Your task to perform on an android device: open app "Skype" (install if not already installed) Image 0: 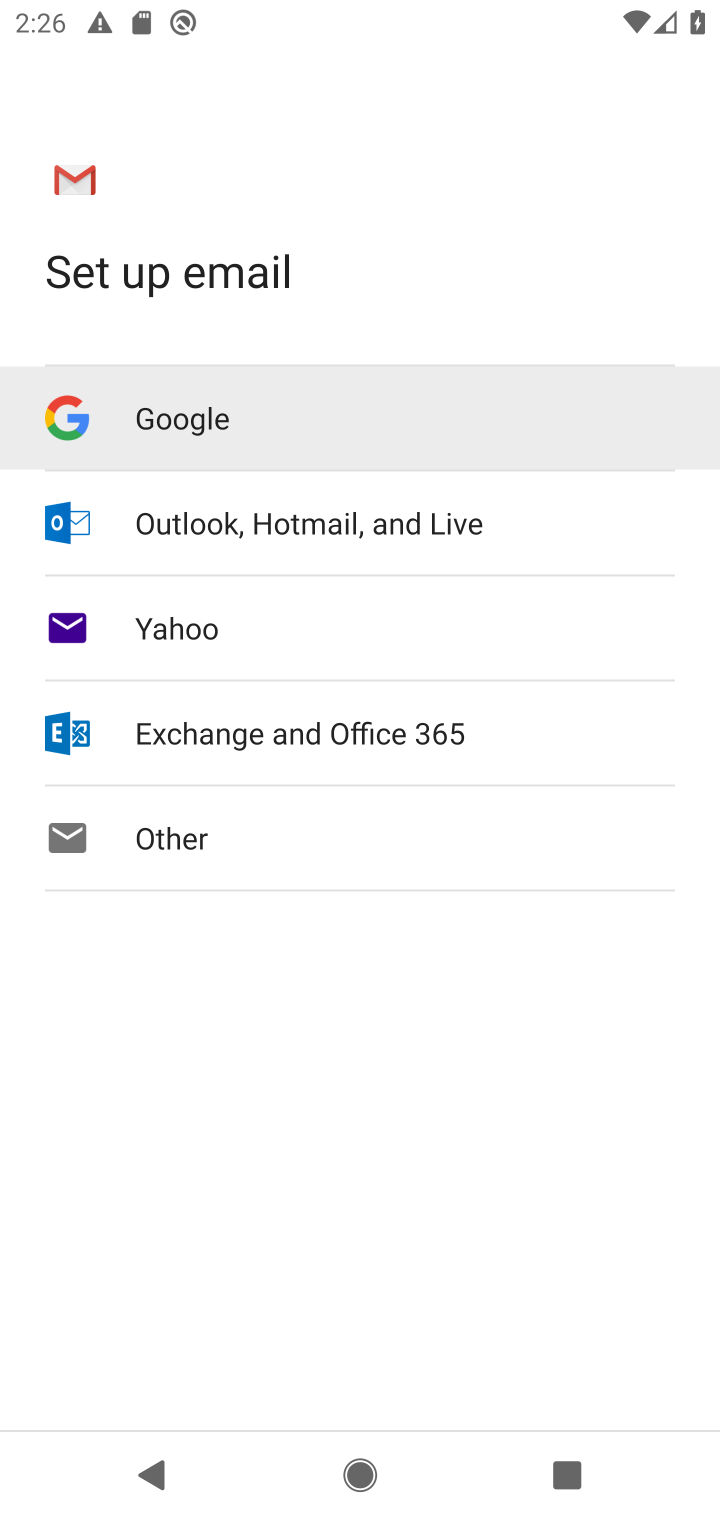
Step 0: press home button
Your task to perform on an android device: open app "Skype" (install if not already installed) Image 1: 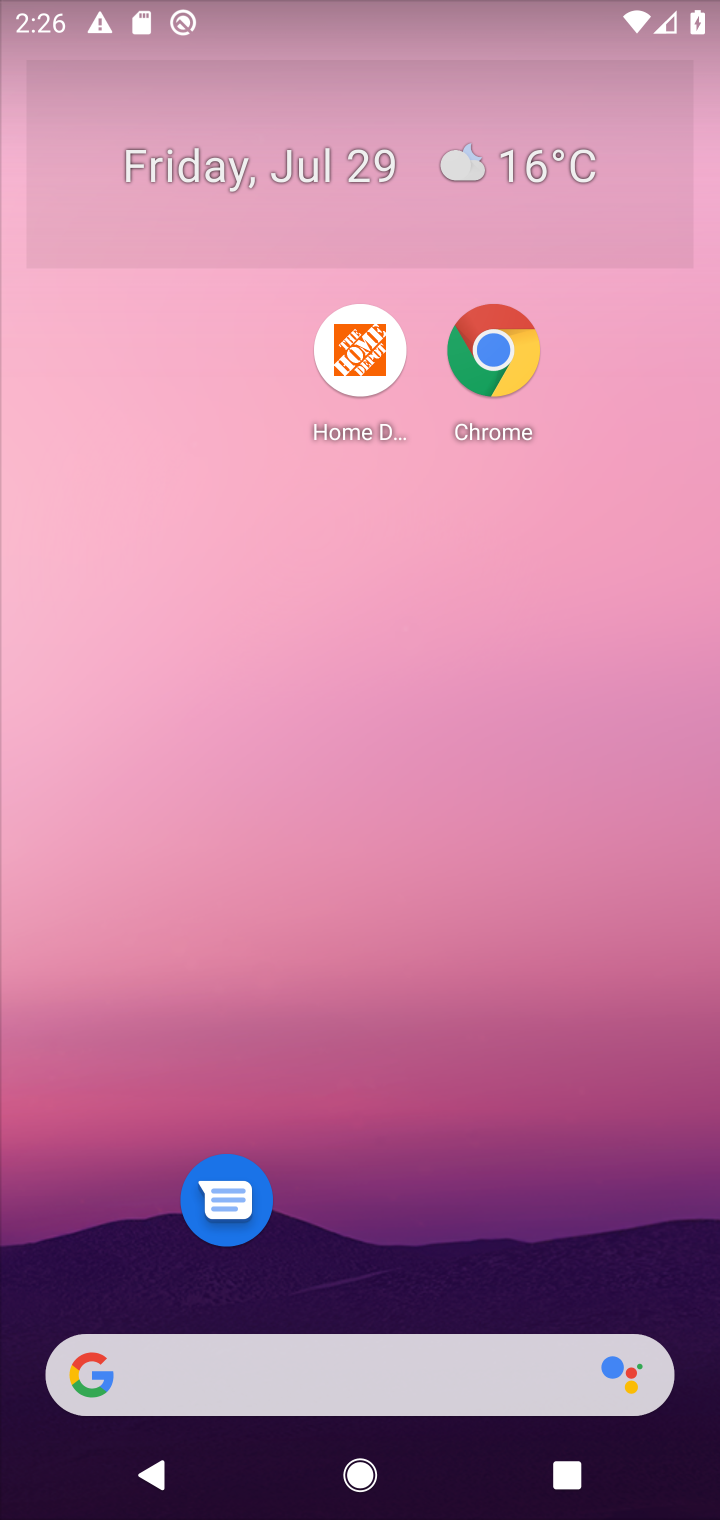
Step 1: drag from (579, 1178) to (606, 170)
Your task to perform on an android device: open app "Skype" (install if not already installed) Image 2: 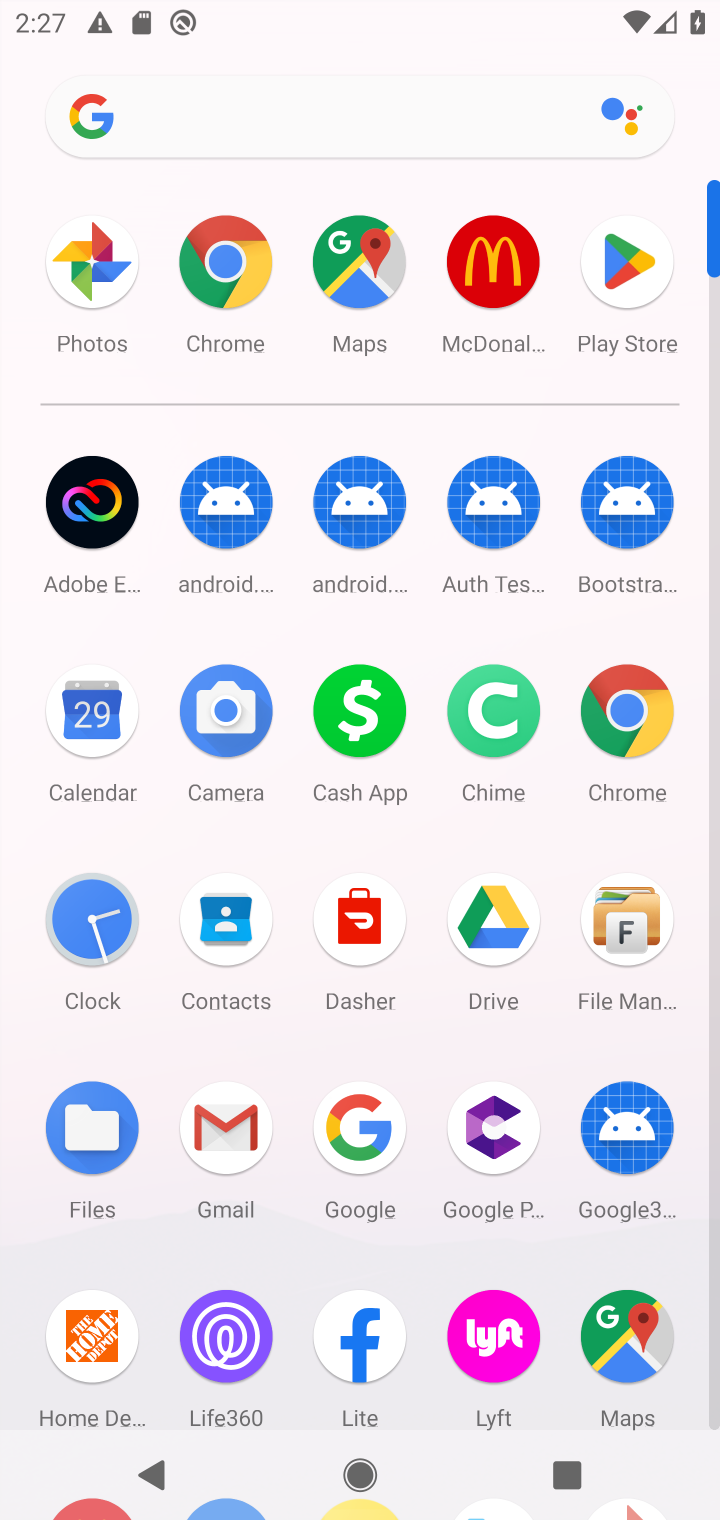
Step 2: click (638, 277)
Your task to perform on an android device: open app "Skype" (install if not already installed) Image 3: 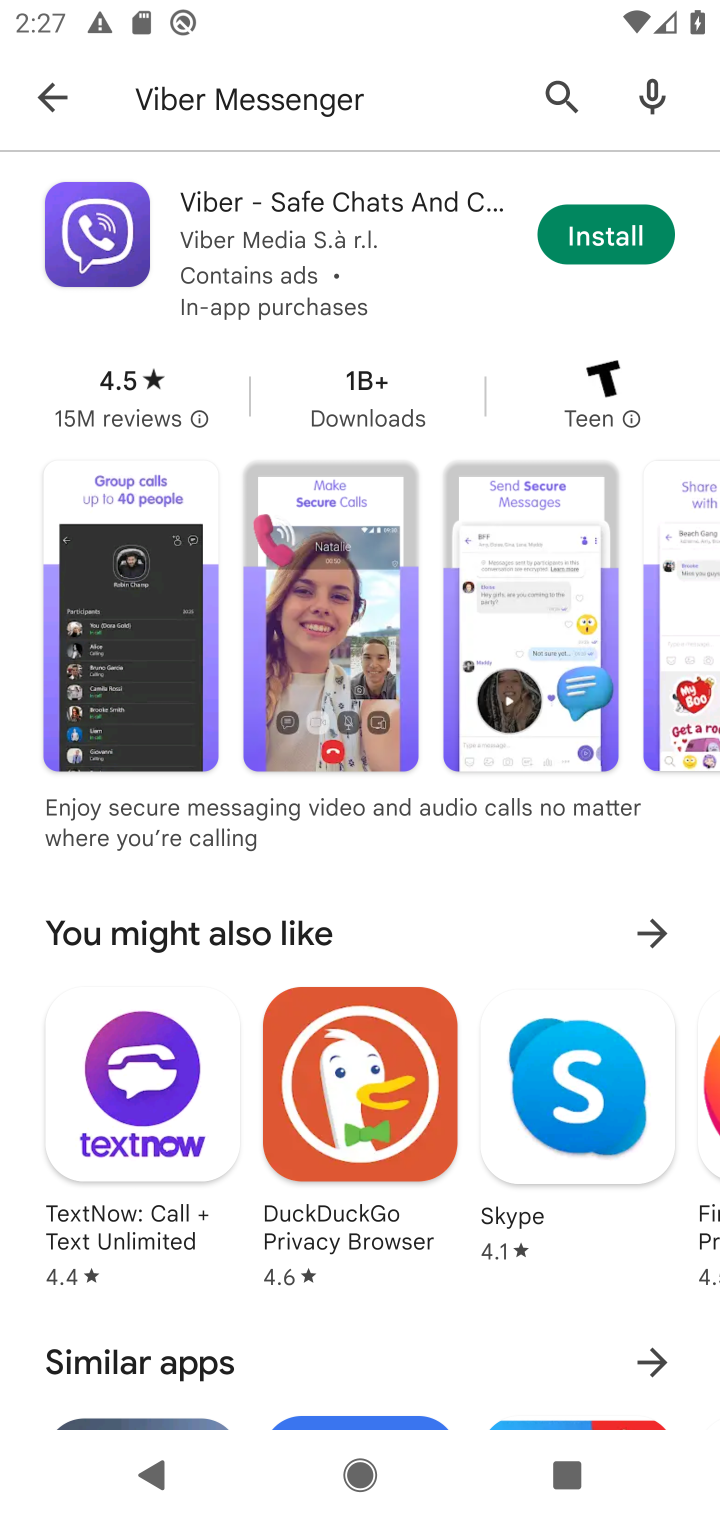
Step 3: click (377, 99)
Your task to perform on an android device: open app "Skype" (install if not already installed) Image 4: 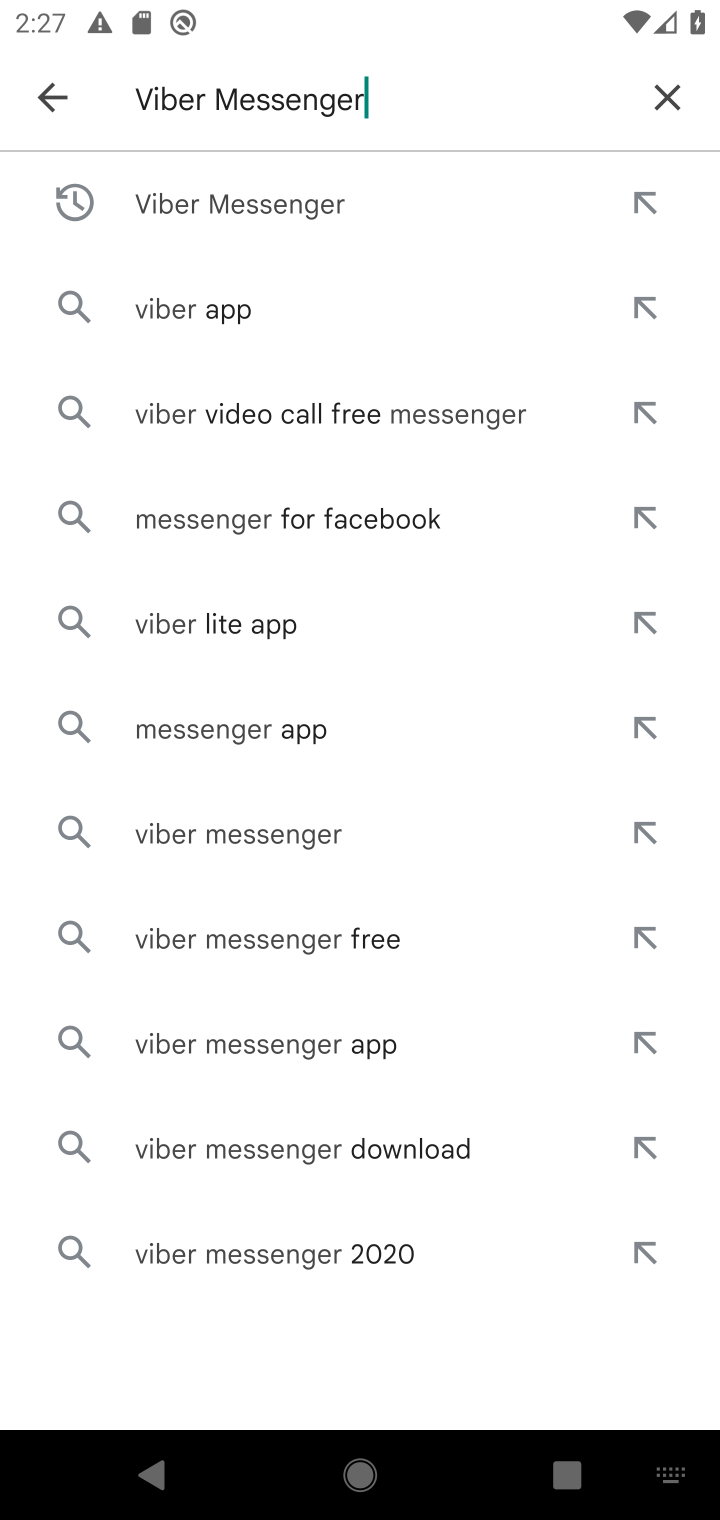
Step 4: click (650, 97)
Your task to perform on an android device: open app "Skype" (install if not already installed) Image 5: 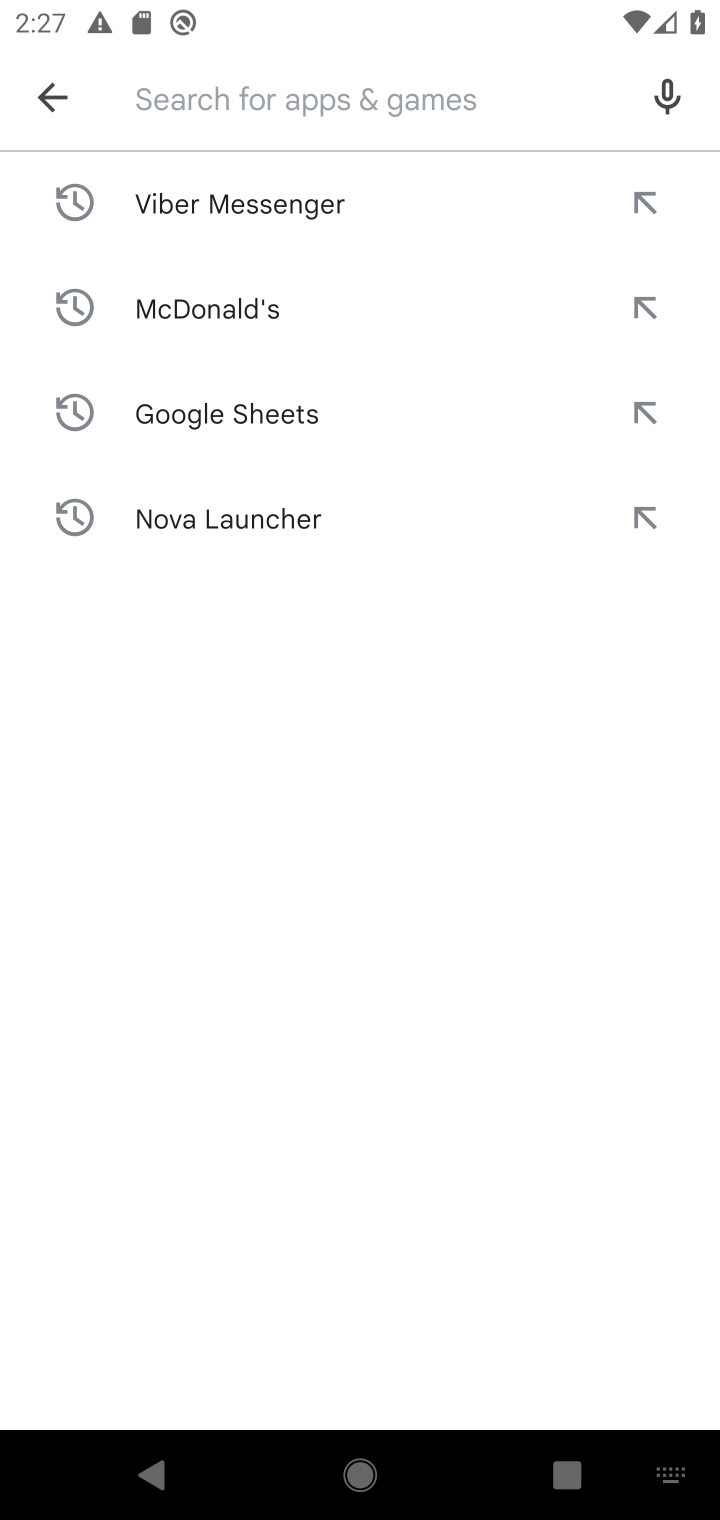
Step 5: type "Skype"
Your task to perform on an android device: open app "Skype" (install if not already installed) Image 6: 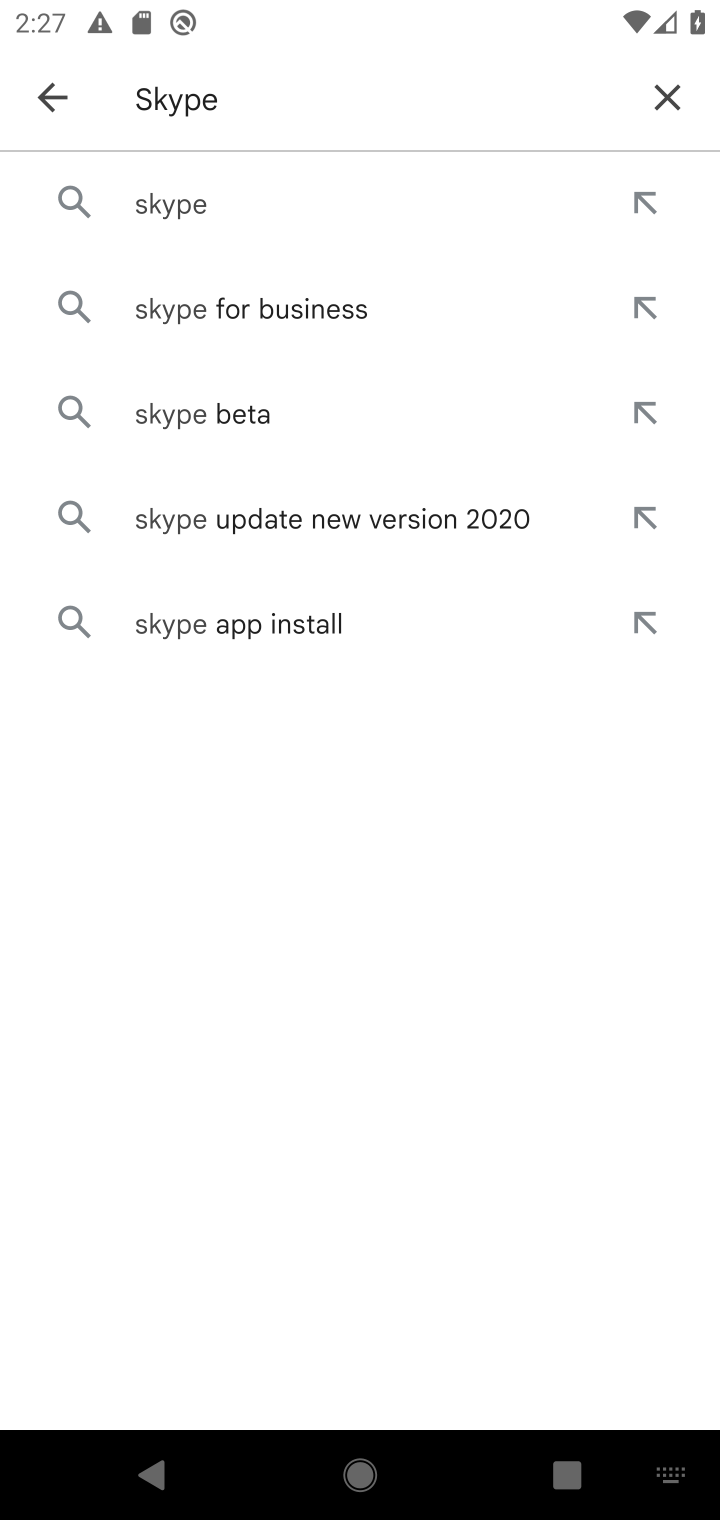
Step 6: press enter
Your task to perform on an android device: open app "Skype" (install if not already installed) Image 7: 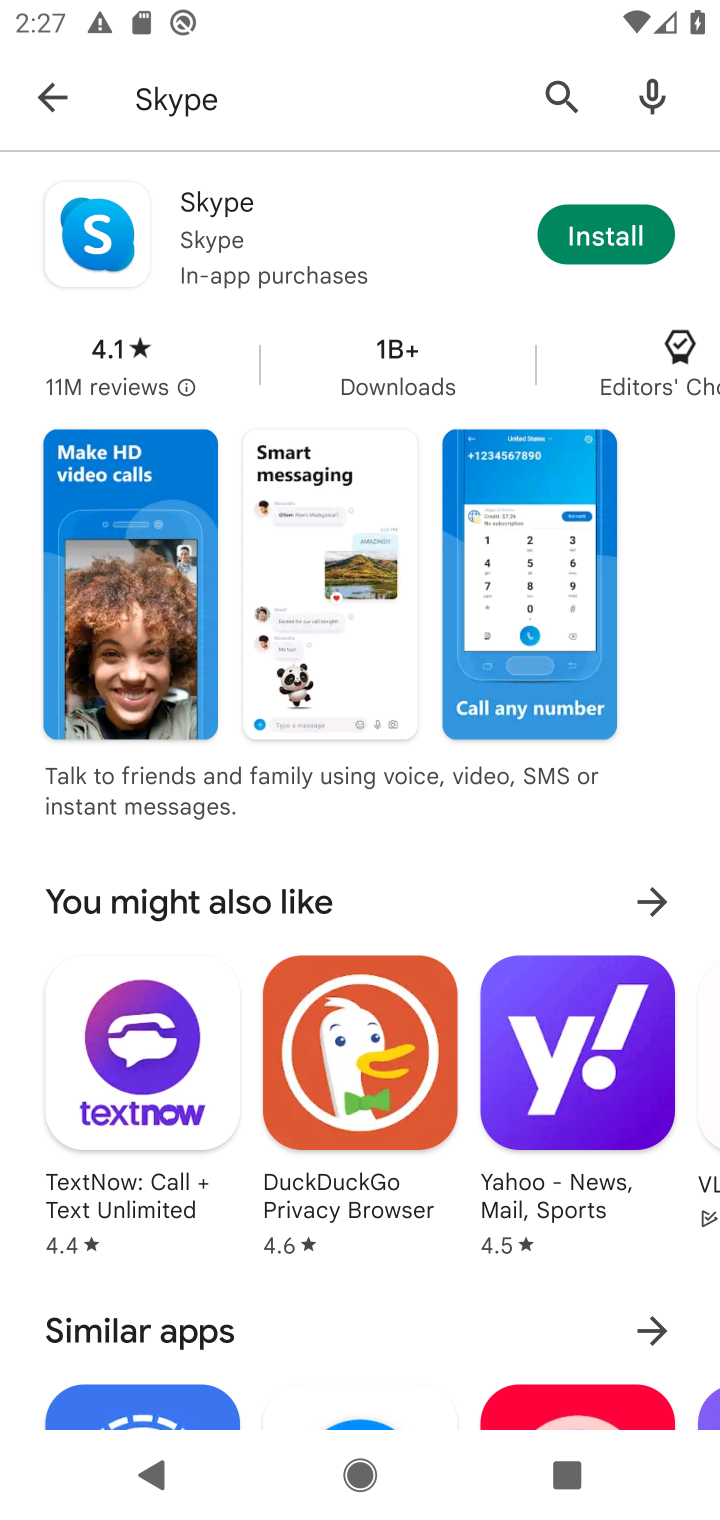
Step 7: click (633, 225)
Your task to perform on an android device: open app "Skype" (install if not already installed) Image 8: 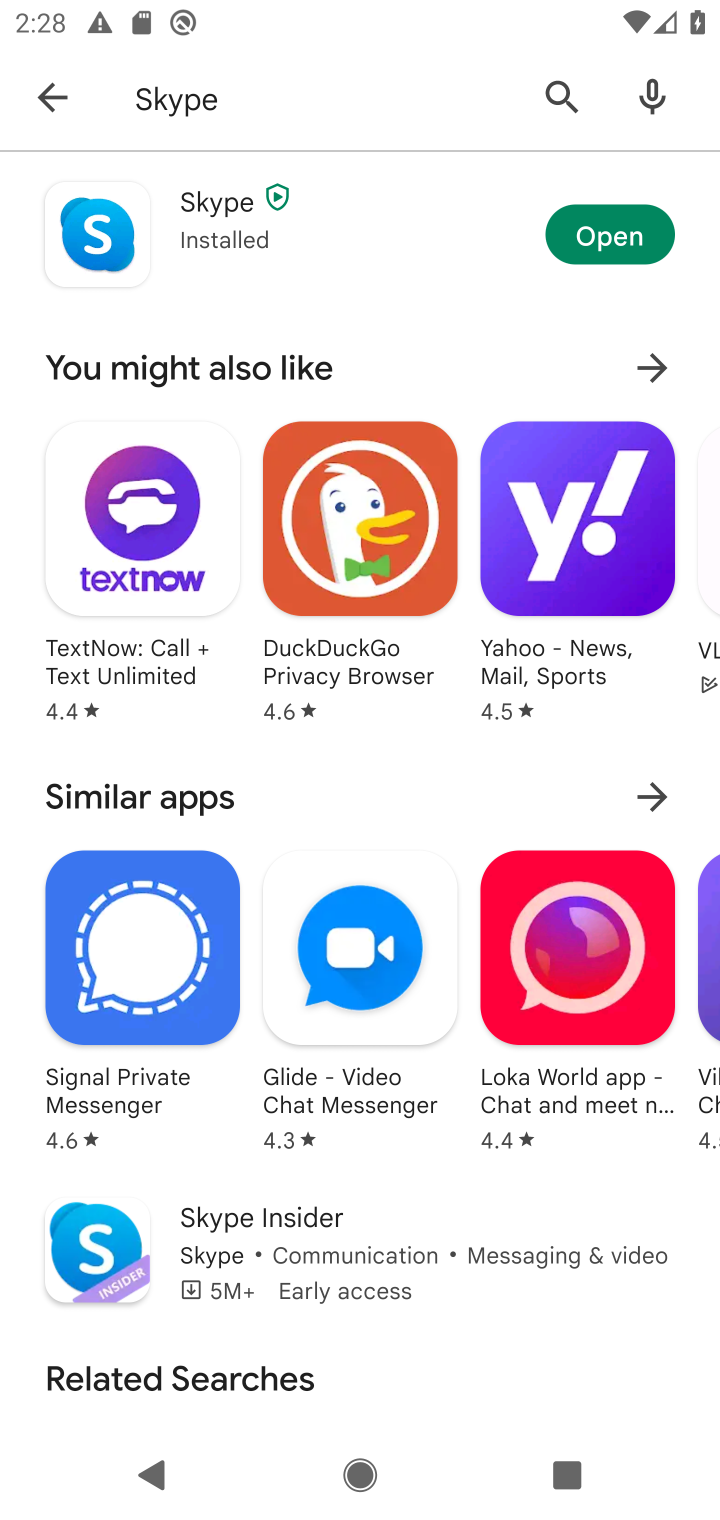
Step 8: click (652, 228)
Your task to perform on an android device: open app "Skype" (install if not already installed) Image 9: 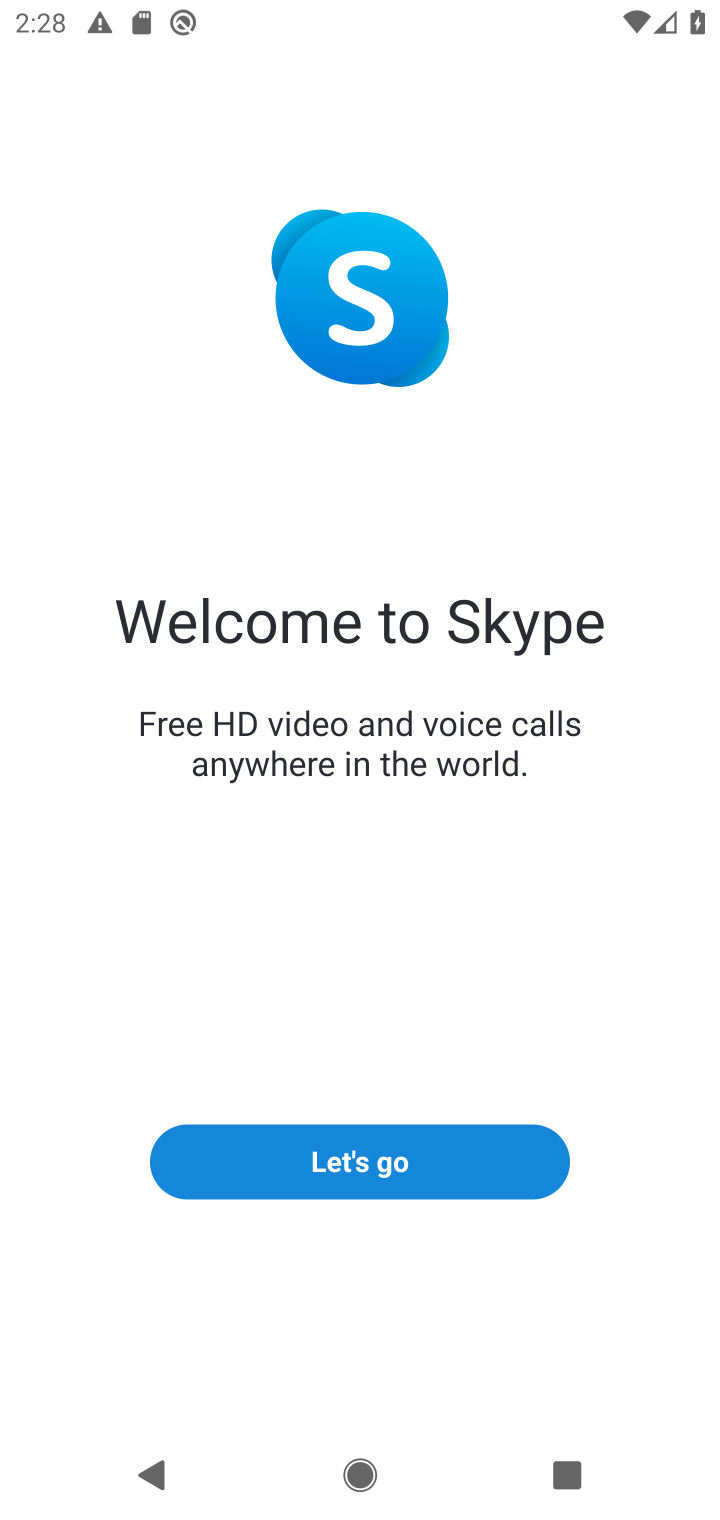
Step 9: task complete